Your task to perform on an android device: Open Google Chrome Image 0: 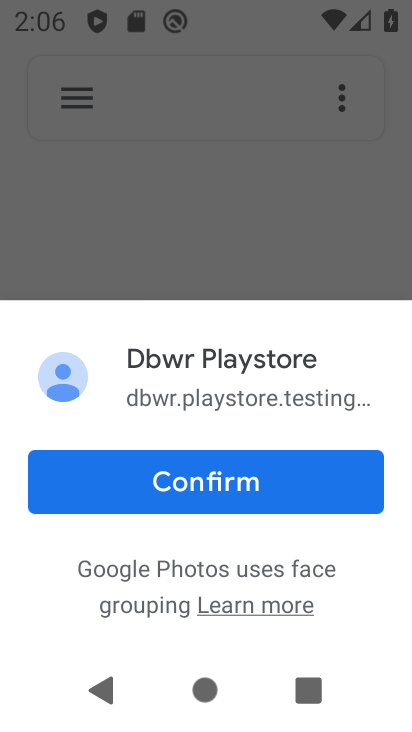
Step 0: press home button
Your task to perform on an android device: Open Google Chrome Image 1: 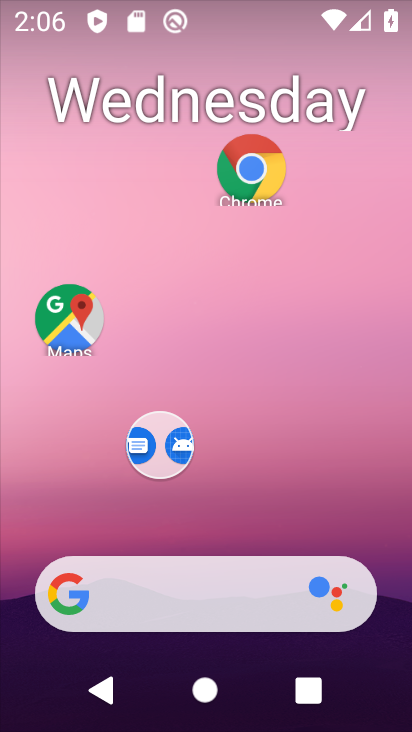
Step 1: click (252, 169)
Your task to perform on an android device: Open Google Chrome Image 2: 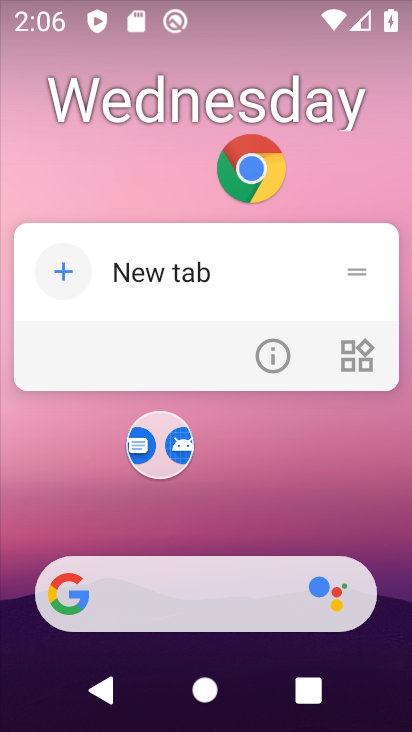
Step 2: click (256, 171)
Your task to perform on an android device: Open Google Chrome Image 3: 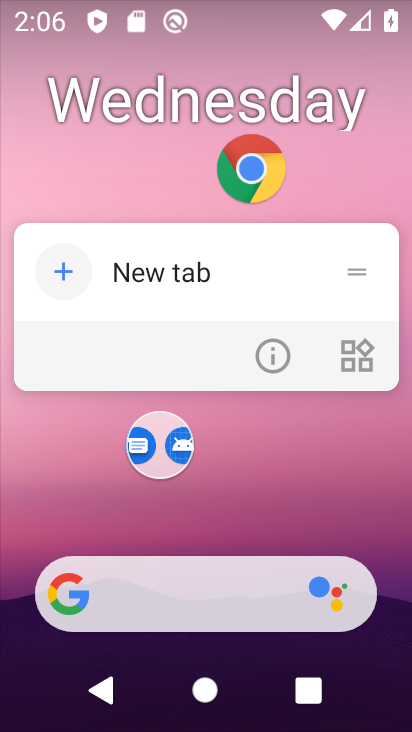
Step 3: click (259, 182)
Your task to perform on an android device: Open Google Chrome Image 4: 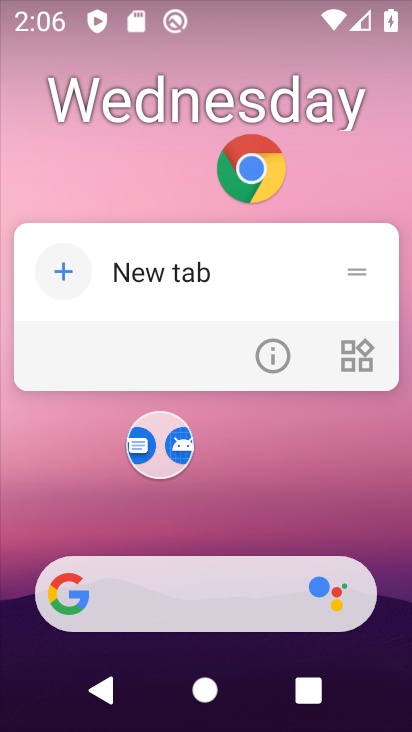
Step 4: click (255, 181)
Your task to perform on an android device: Open Google Chrome Image 5: 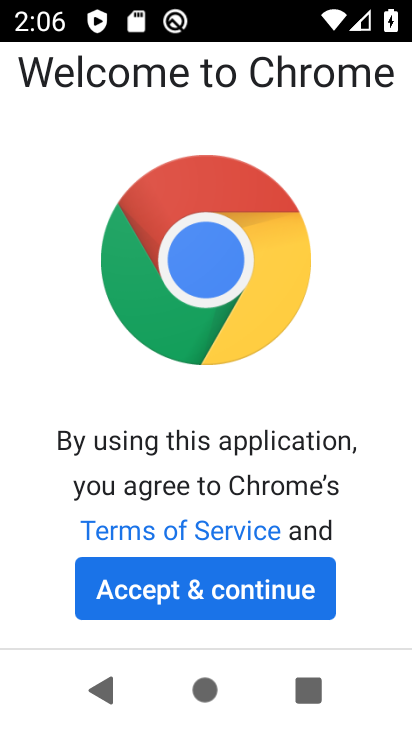
Step 5: click (190, 591)
Your task to perform on an android device: Open Google Chrome Image 6: 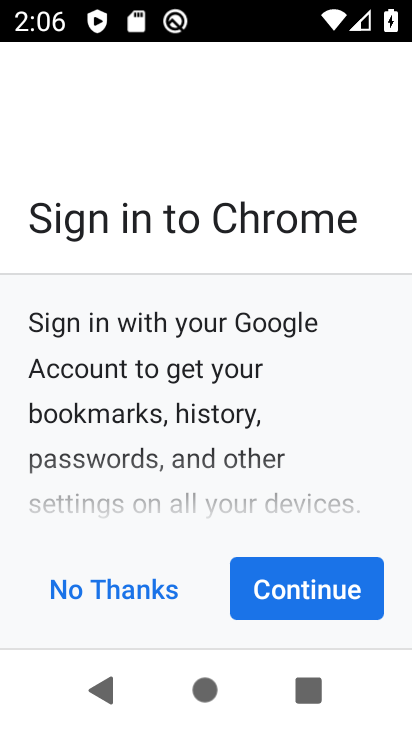
Step 6: click (349, 582)
Your task to perform on an android device: Open Google Chrome Image 7: 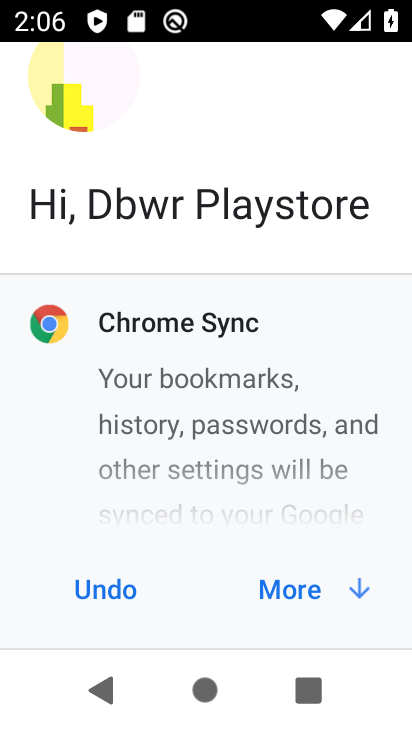
Step 7: click (346, 600)
Your task to perform on an android device: Open Google Chrome Image 8: 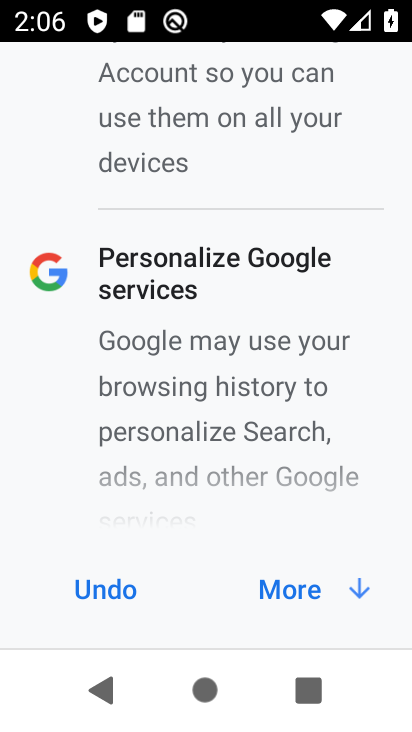
Step 8: click (342, 597)
Your task to perform on an android device: Open Google Chrome Image 9: 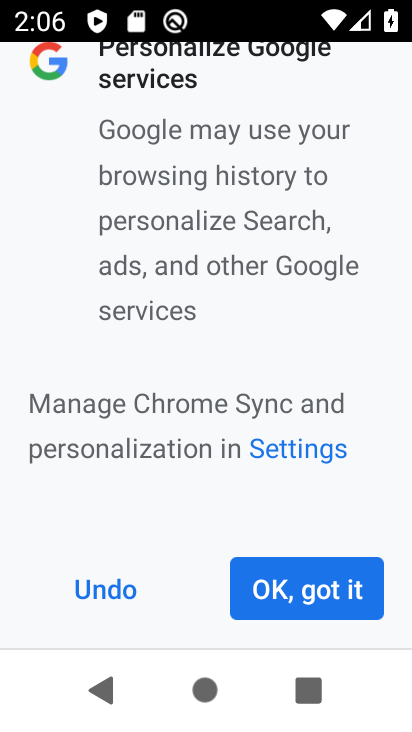
Step 9: click (342, 597)
Your task to perform on an android device: Open Google Chrome Image 10: 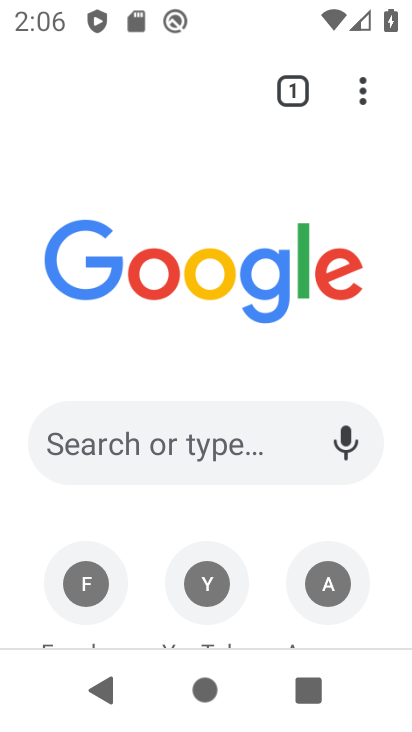
Step 10: task complete